Your task to perform on an android device: toggle wifi Image 0: 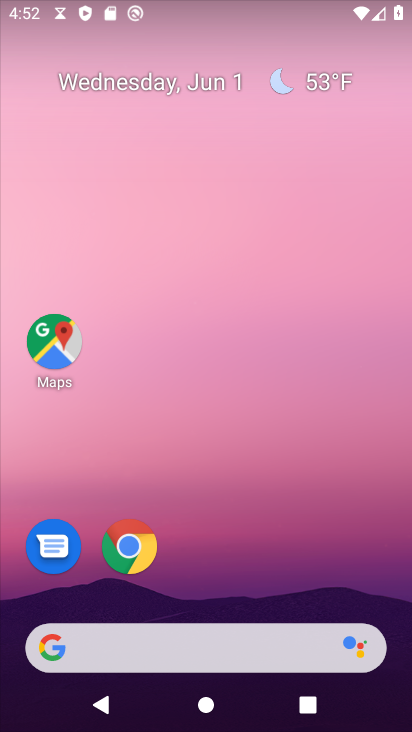
Step 0: drag from (226, 468) to (200, 54)
Your task to perform on an android device: toggle wifi Image 1: 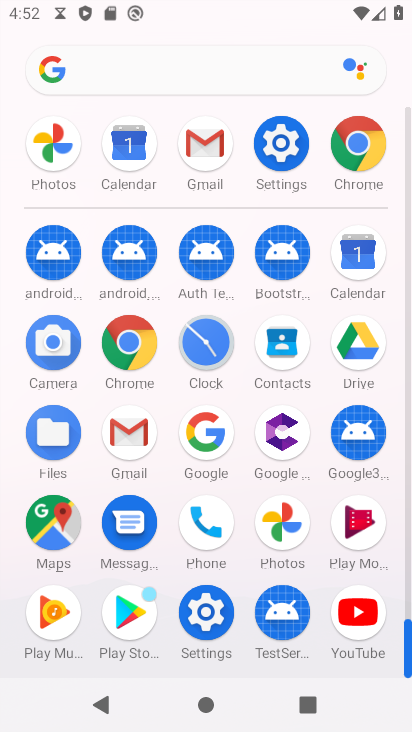
Step 1: drag from (16, 541) to (0, 220)
Your task to perform on an android device: toggle wifi Image 2: 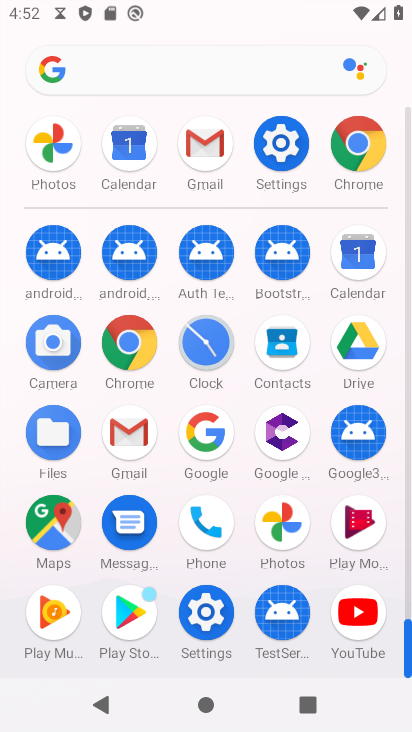
Step 2: click (285, 139)
Your task to perform on an android device: toggle wifi Image 3: 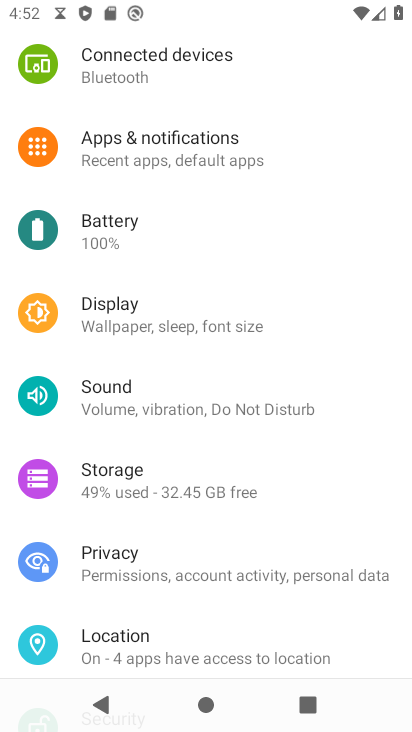
Step 3: drag from (280, 132) to (291, 559)
Your task to perform on an android device: toggle wifi Image 4: 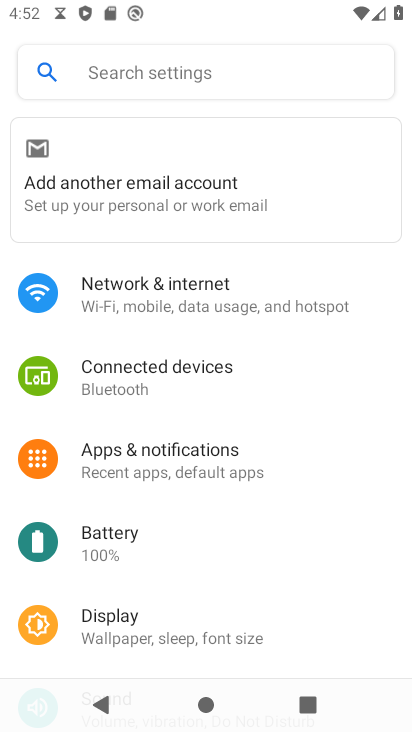
Step 4: click (225, 292)
Your task to perform on an android device: toggle wifi Image 5: 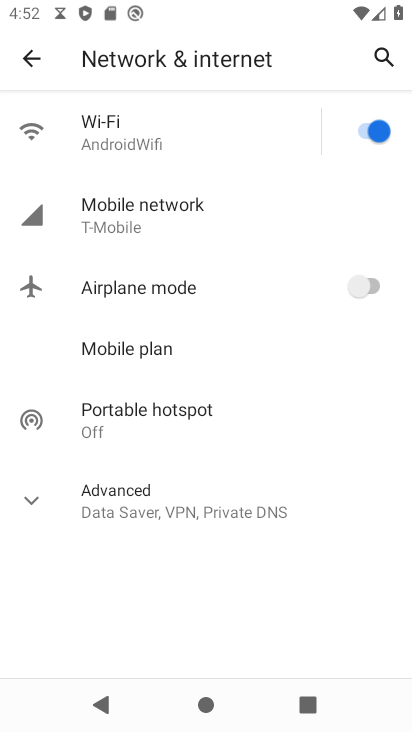
Step 5: click (55, 490)
Your task to perform on an android device: toggle wifi Image 6: 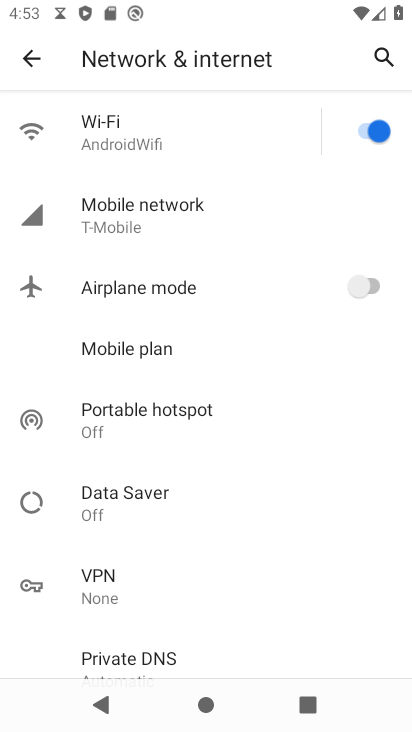
Step 6: click (368, 131)
Your task to perform on an android device: toggle wifi Image 7: 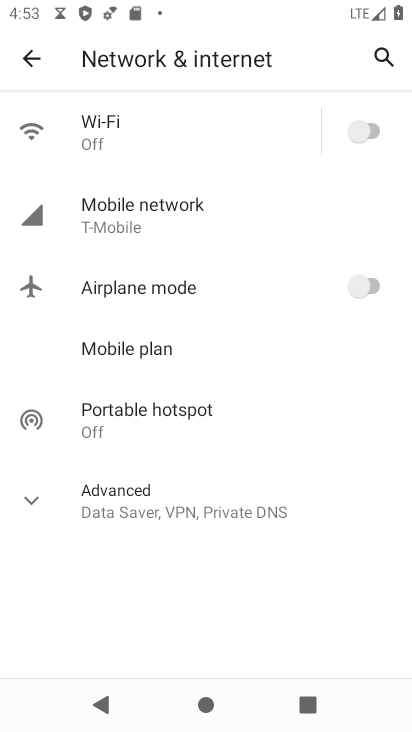
Step 7: click (42, 497)
Your task to perform on an android device: toggle wifi Image 8: 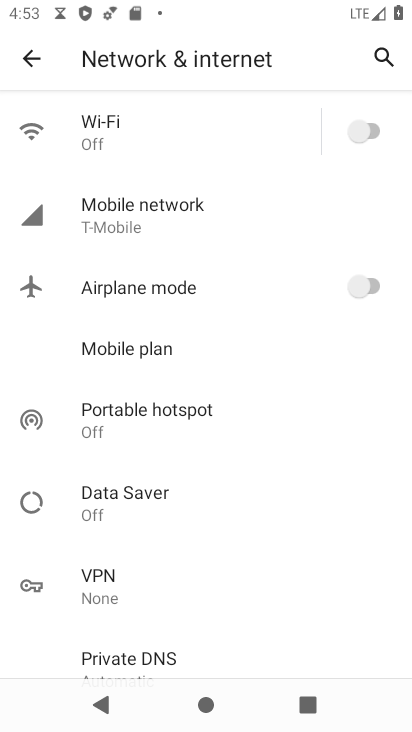
Step 8: task complete